Your task to perform on an android device: Go to settings Image 0: 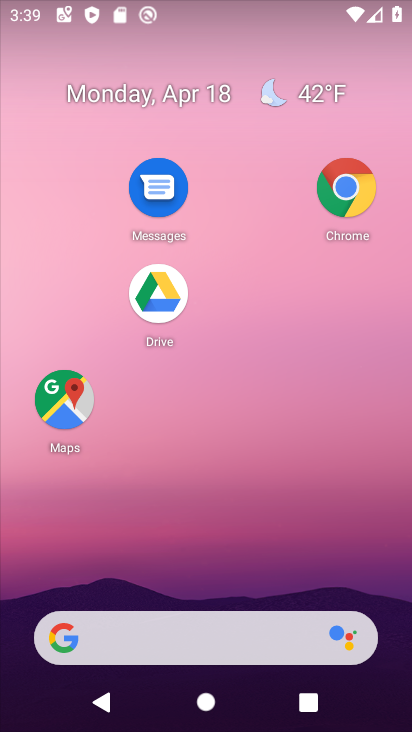
Step 0: drag from (273, 570) to (252, 85)
Your task to perform on an android device: Go to settings Image 1: 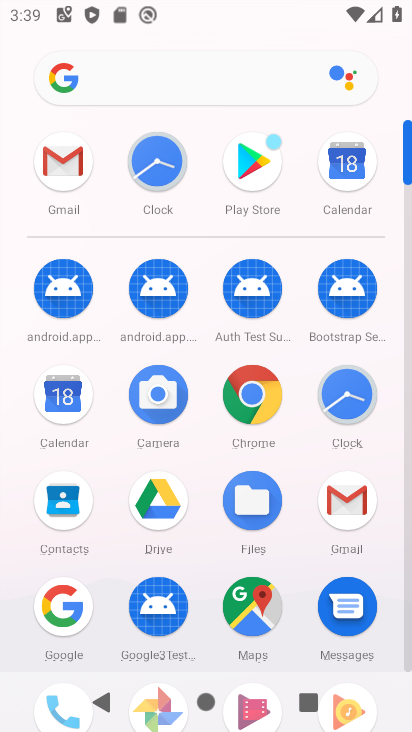
Step 1: drag from (214, 565) to (204, 337)
Your task to perform on an android device: Go to settings Image 2: 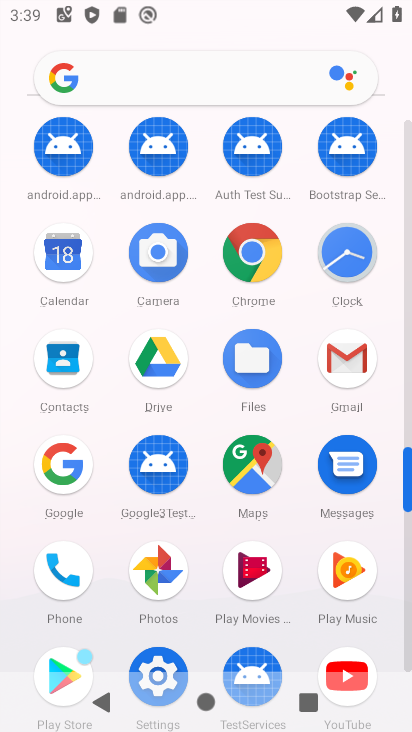
Step 2: drag from (217, 510) to (209, 288)
Your task to perform on an android device: Go to settings Image 3: 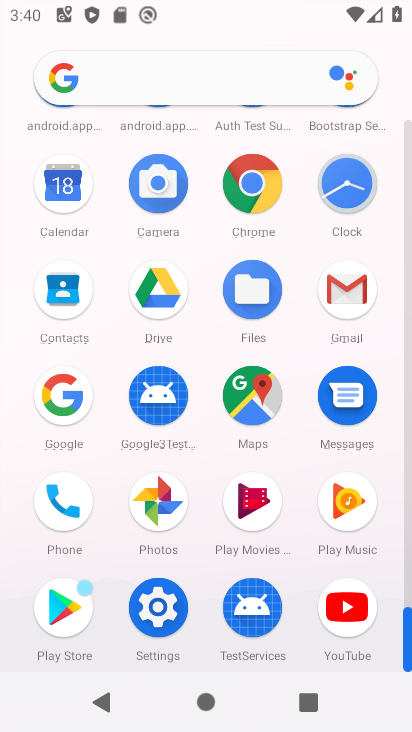
Step 3: click (145, 602)
Your task to perform on an android device: Go to settings Image 4: 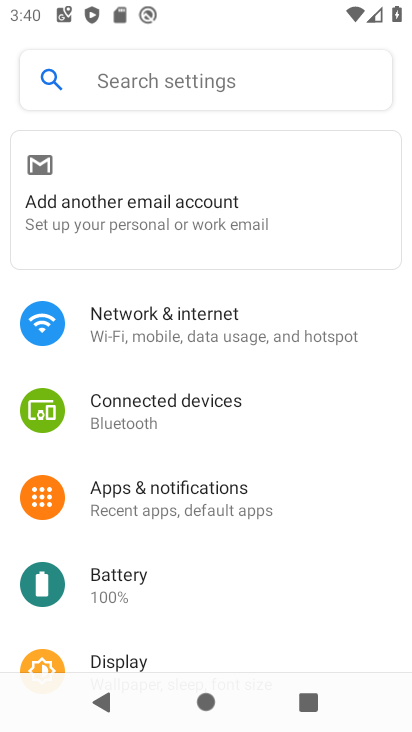
Step 4: task complete